Your task to perform on an android device: Open Wikipedia Image 0: 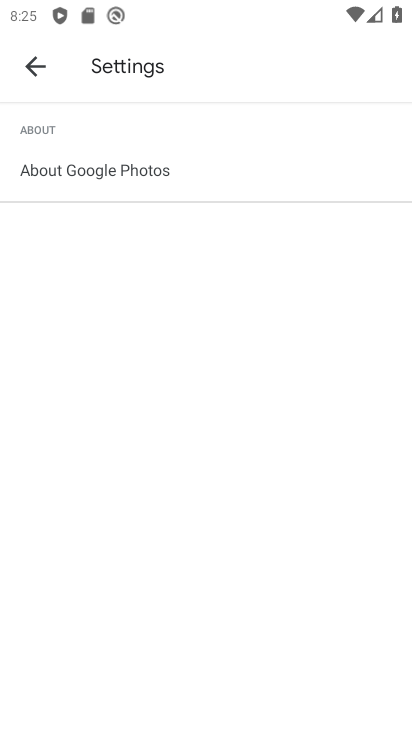
Step 0: press home button
Your task to perform on an android device: Open Wikipedia Image 1: 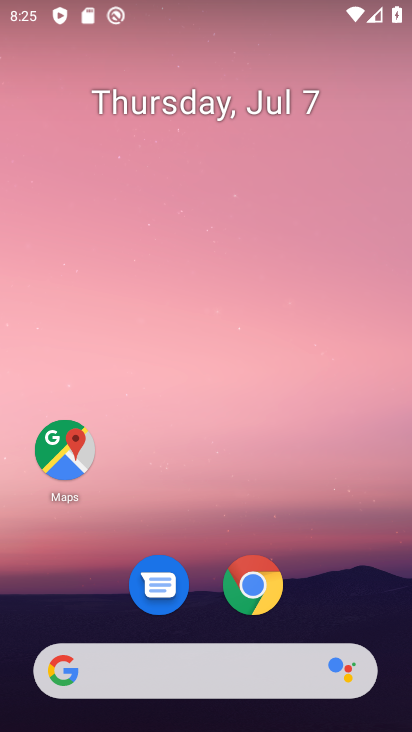
Step 1: click (257, 584)
Your task to perform on an android device: Open Wikipedia Image 2: 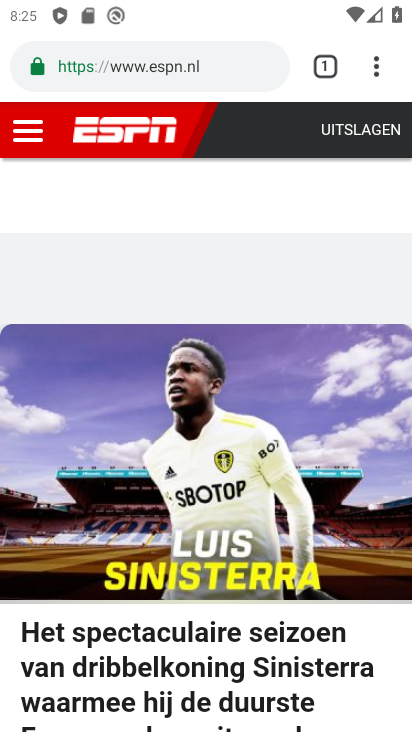
Step 2: click (375, 61)
Your task to perform on an android device: Open Wikipedia Image 3: 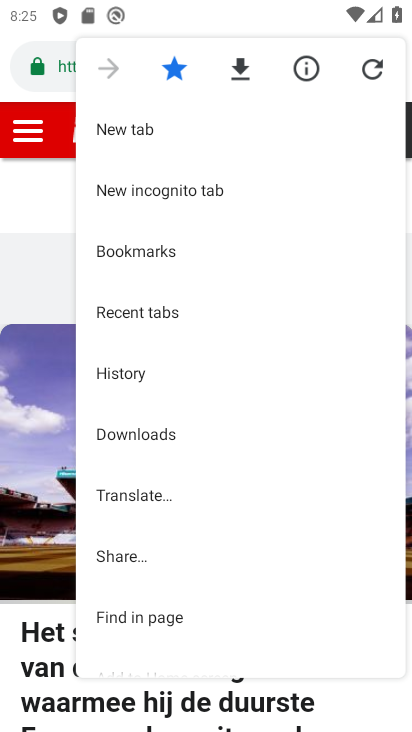
Step 3: click (132, 126)
Your task to perform on an android device: Open Wikipedia Image 4: 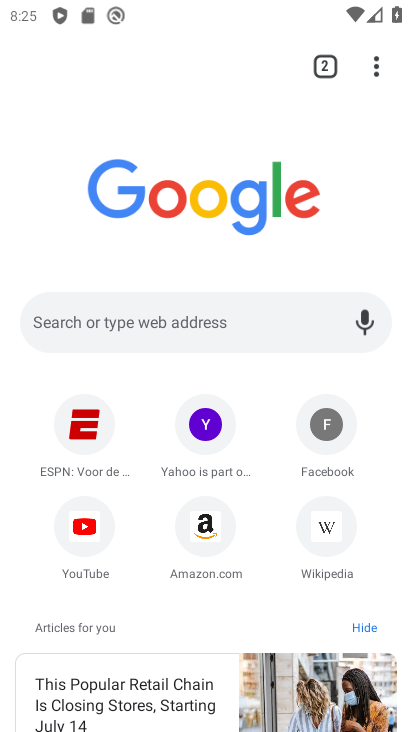
Step 4: click (325, 517)
Your task to perform on an android device: Open Wikipedia Image 5: 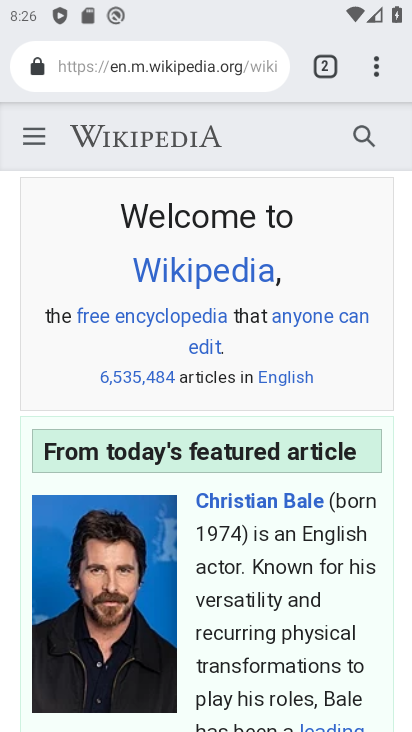
Step 5: task complete